Your task to perform on an android device: Show me popular games on the Play Store Image 0: 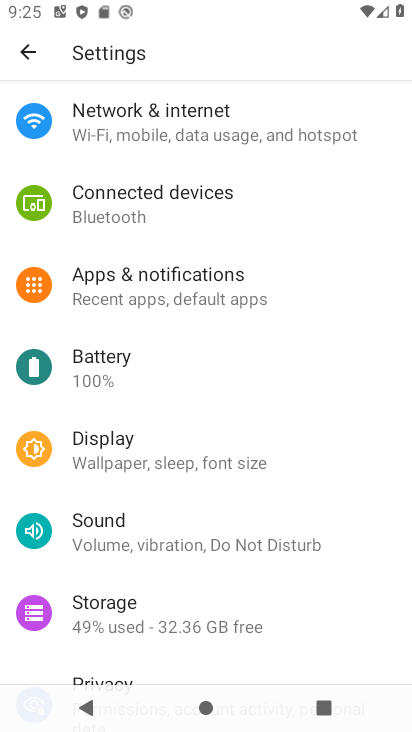
Step 0: press home button
Your task to perform on an android device: Show me popular games on the Play Store Image 1: 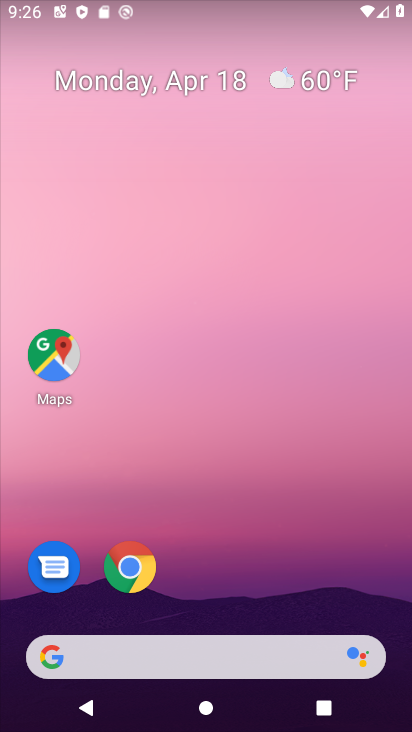
Step 1: drag from (194, 583) to (228, 3)
Your task to perform on an android device: Show me popular games on the Play Store Image 2: 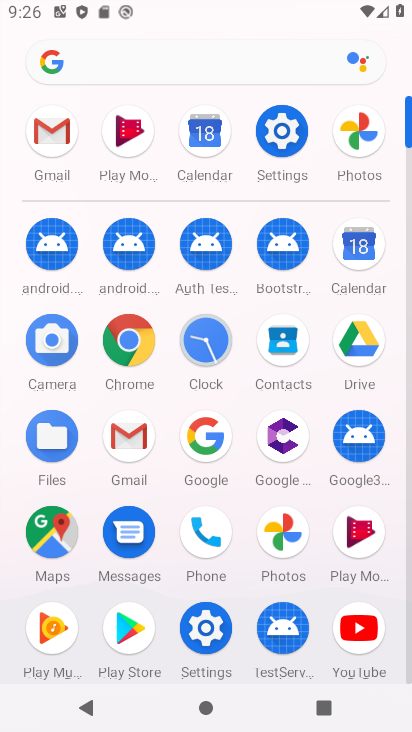
Step 2: click (118, 655)
Your task to perform on an android device: Show me popular games on the Play Store Image 3: 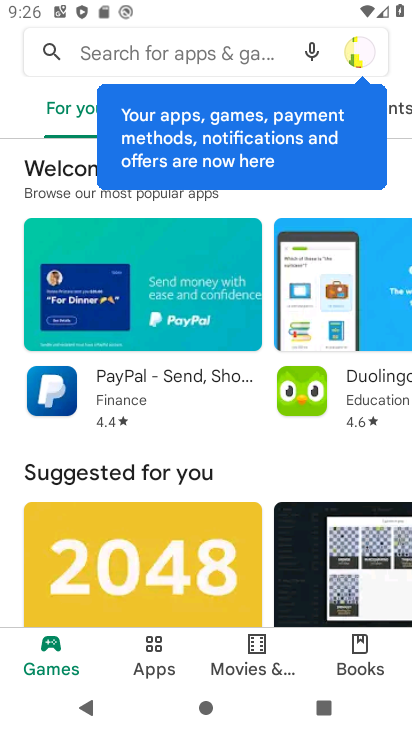
Step 3: click (14, 123)
Your task to perform on an android device: Show me popular games on the Play Store Image 4: 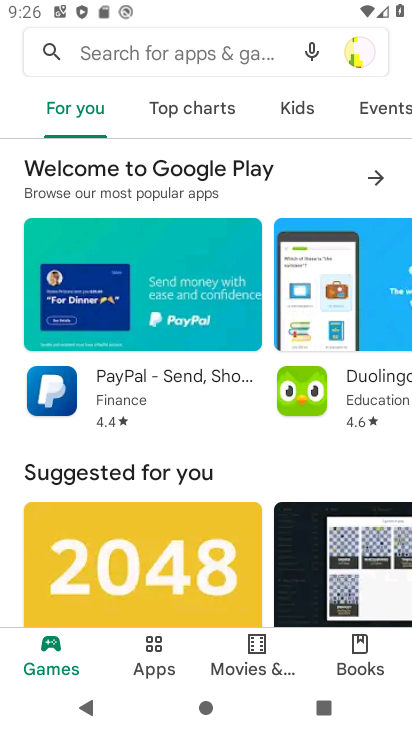
Step 4: click (204, 108)
Your task to perform on an android device: Show me popular games on the Play Store Image 5: 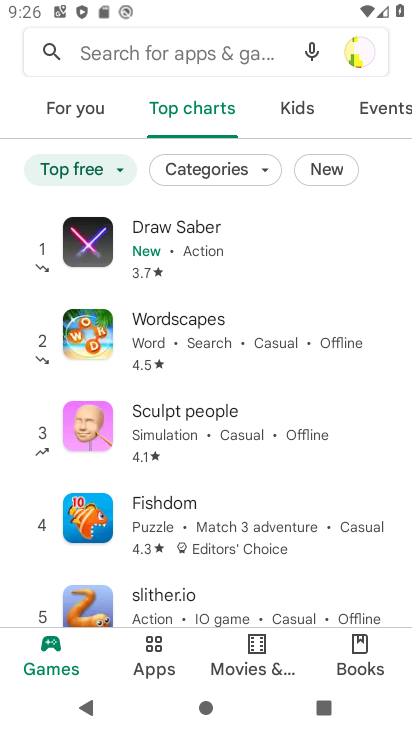
Step 5: click (268, 166)
Your task to perform on an android device: Show me popular games on the Play Store Image 6: 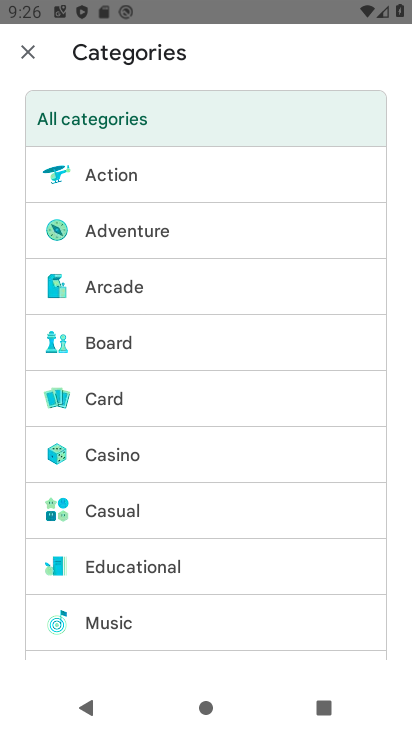
Step 6: drag from (170, 548) to (211, 210)
Your task to perform on an android device: Show me popular games on the Play Store Image 7: 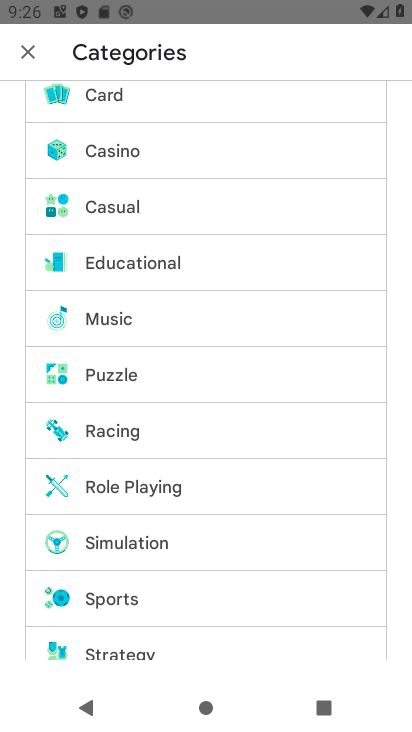
Step 7: drag from (150, 592) to (260, 21)
Your task to perform on an android device: Show me popular games on the Play Store Image 8: 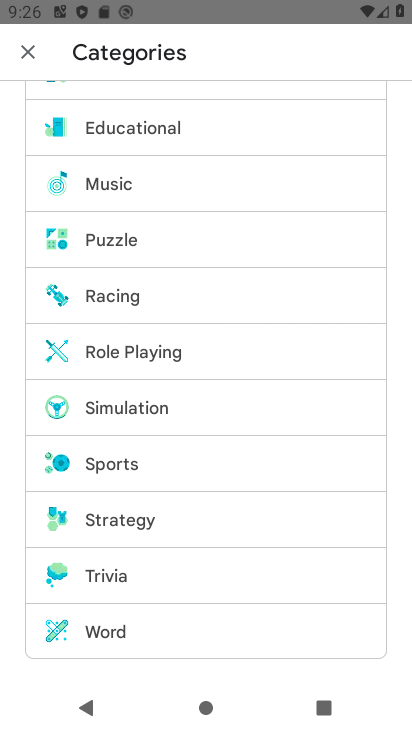
Step 8: click (32, 53)
Your task to perform on an android device: Show me popular games on the Play Store Image 9: 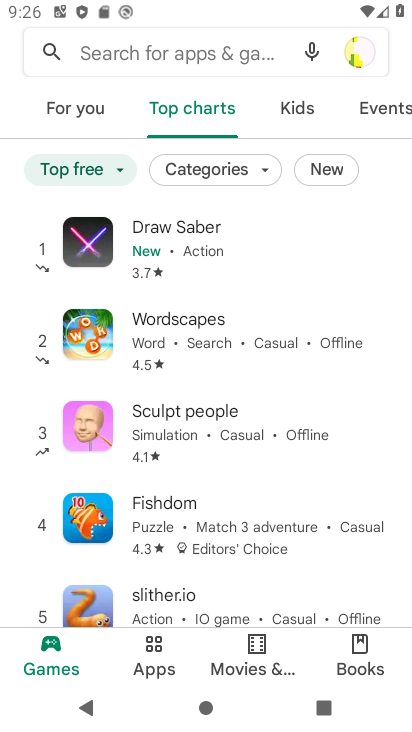
Step 9: click (124, 167)
Your task to perform on an android device: Show me popular games on the Play Store Image 10: 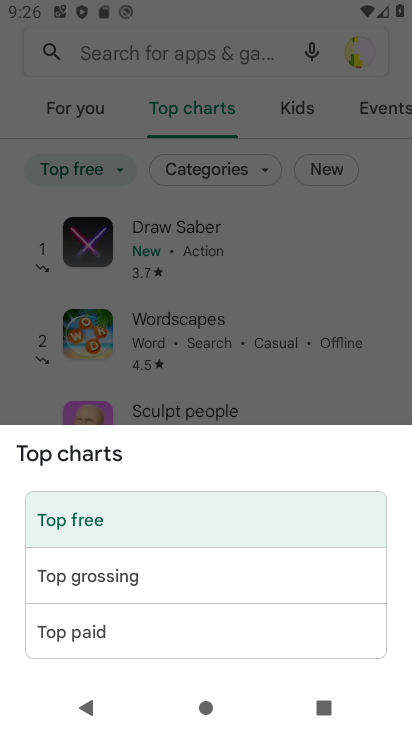
Step 10: click (309, 294)
Your task to perform on an android device: Show me popular games on the Play Store Image 11: 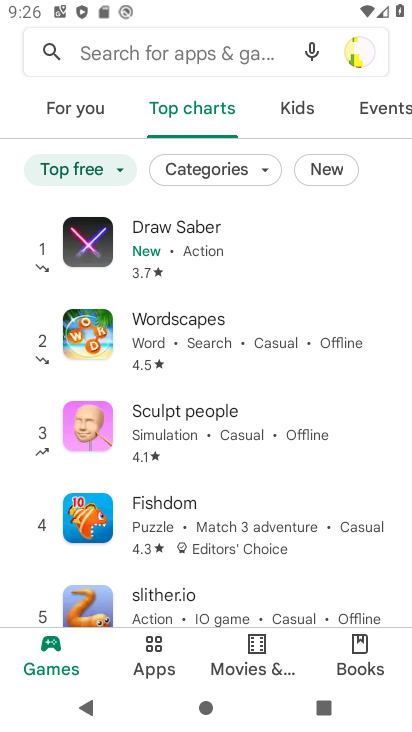
Step 11: task complete